Your task to perform on an android device: turn off translation in the chrome app Image 0: 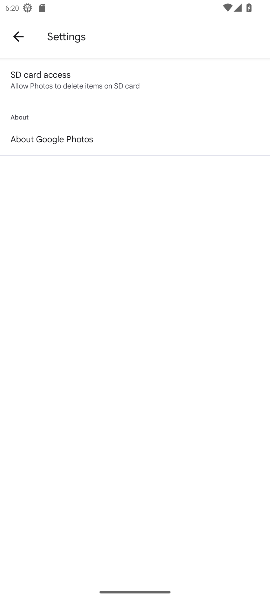
Step 0: press home button
Your task to perform on an android device: turn off translation in the chrome app Image 1: 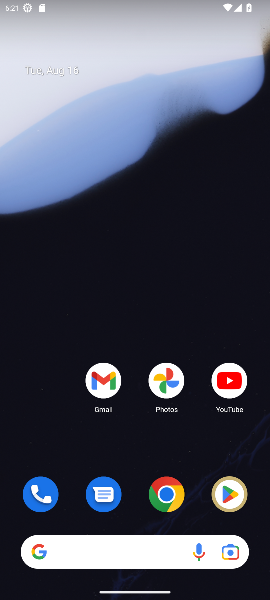
Step 1: click (167, 504)
Your task to perform on an android device: turn off translation in the chrome app Image 2: 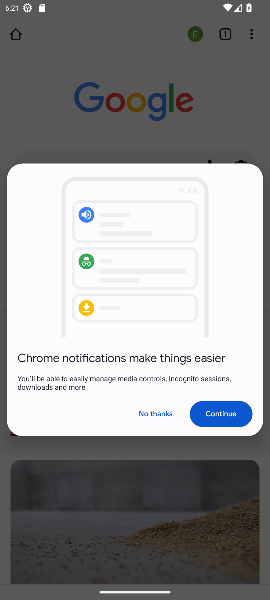
Step 2: click (147, 413)
Your task to perform on an android device: turn off translation in the chrome app Image 3: 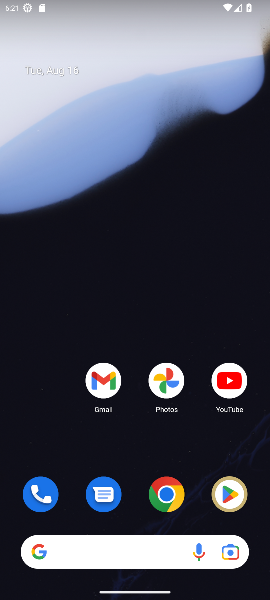
Step 3: task complete